Your task to perform on an android device: What's on my calendar today? Image 0: 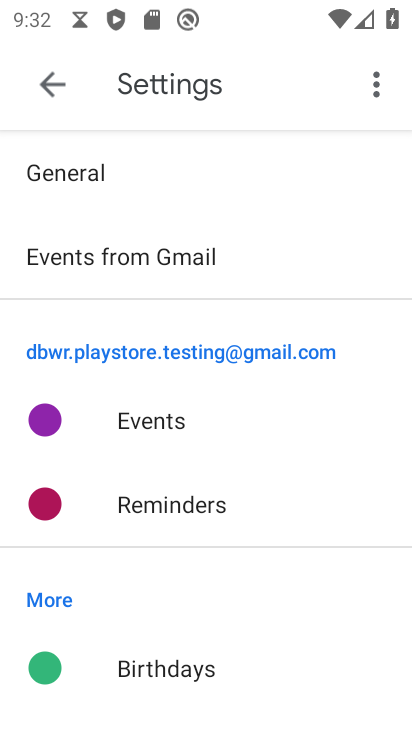
Step 0: press home button
Your task to perform on an android device: What's on my calendar today? Image 1: 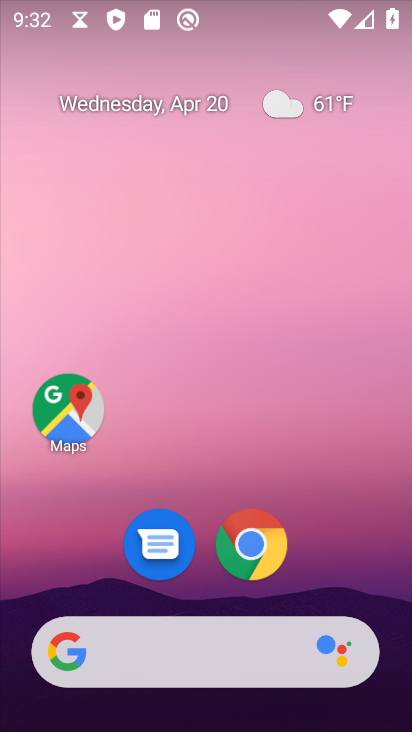
Step 1: drag from (145, 632) to (289, 50)
Your task to perform on an android device: What's on my calendar today? Image 2: 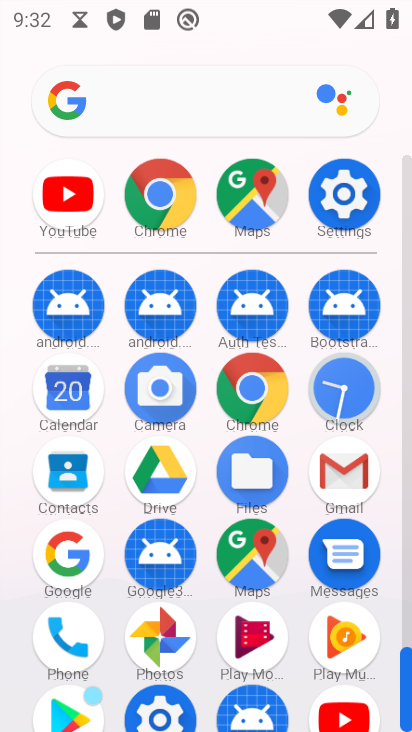
Step 2: click (79, 388)
Your task to perform on an android device: What's on my calendar today? Image 3: 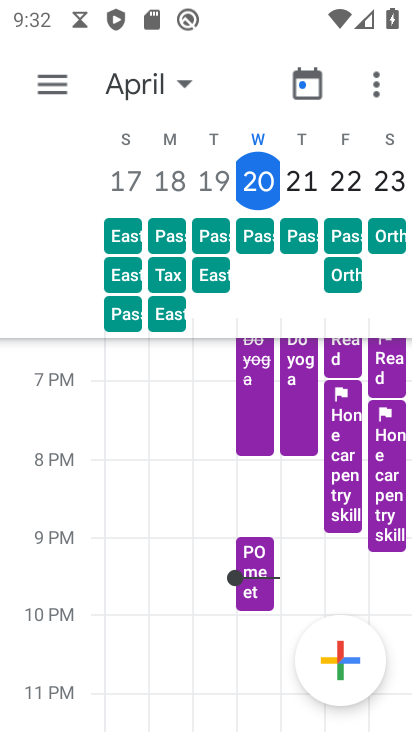
Step 3: click (125, 84)
Your task to perform on an android device: What's on my calendar today? Image 4: 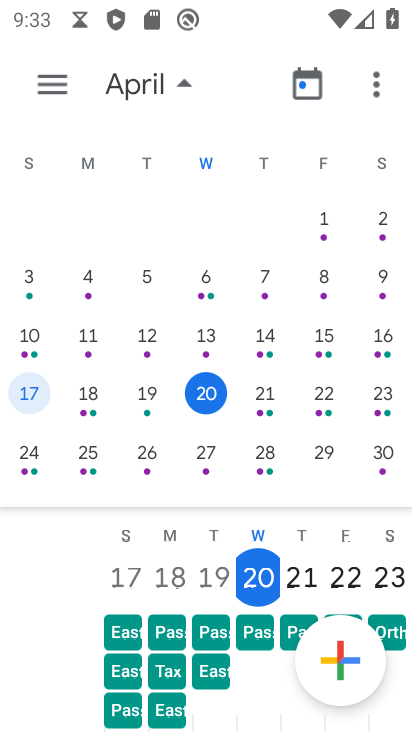
Step 4: click (54, 89)
Your task to perform on an android device: What's on my calendar today? Image 5: 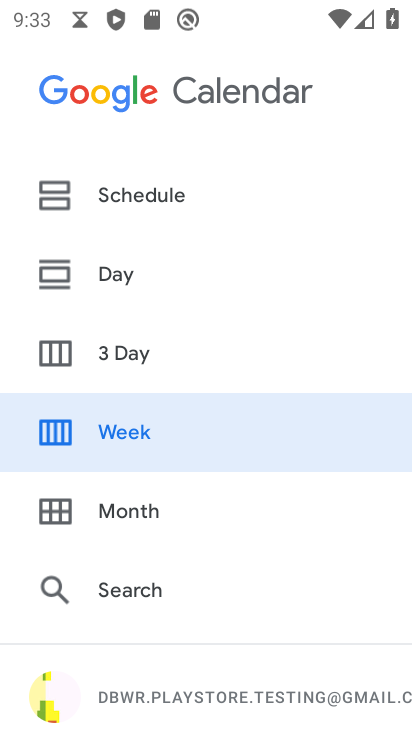
Step 5: click (138, 191)
Your task to perform on an android device: What's on my calendar today? Image 6: 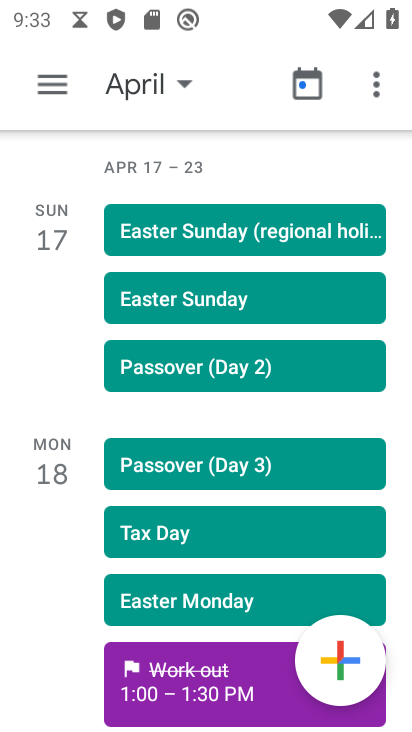
Step 6: click (138, 75)
Your task to perform on an android device: What's on my calendar today? Image 7: 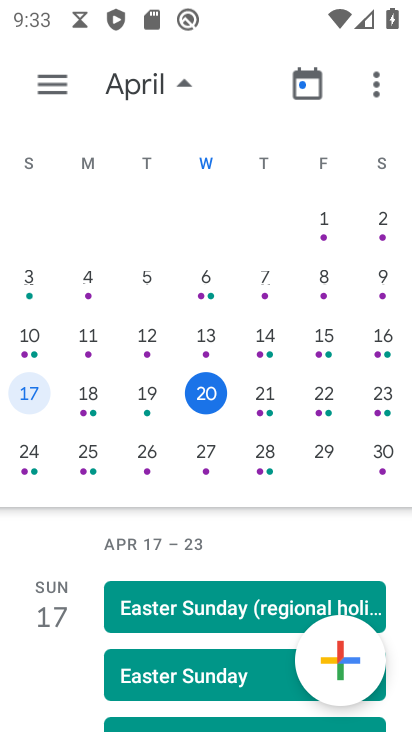
Step 7: click (205, 390)
Your task to perform on an android device: What's on my calendar today? Image 8: 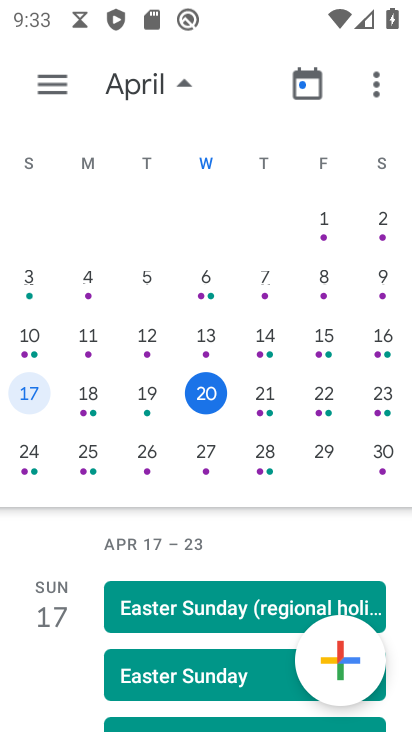
Step 8: click (48, 80)
Your task to perform on an android device: What's on my calendar today? Image 9: 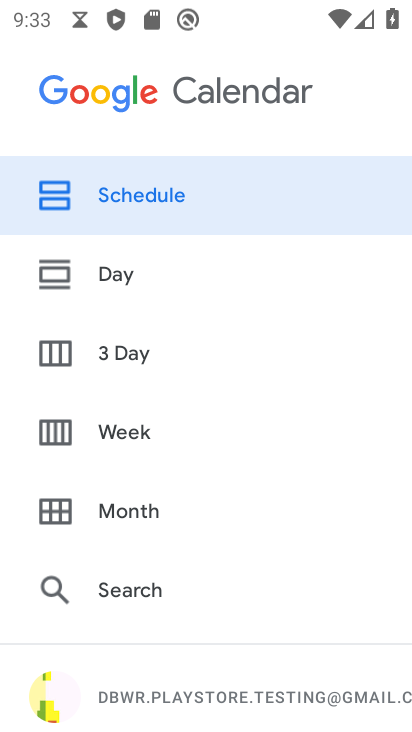
Step 9: click (112, 272)
Your task to perform on an android device: What's on my calendar today? Image 10: 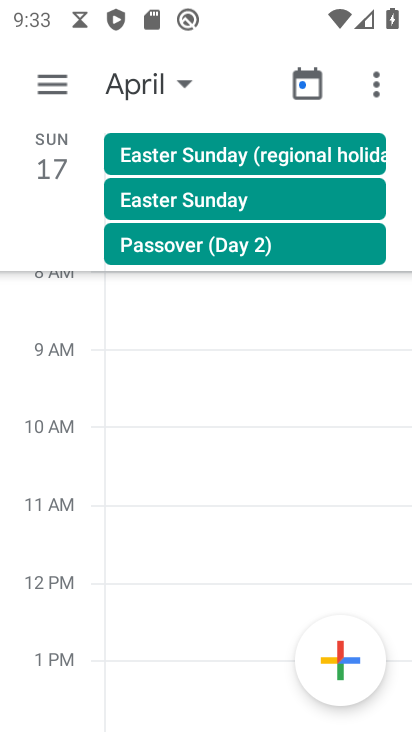
Step 10: click (119, 87)
Your task to perform on an android device: What's on my calendar today? Image 11: 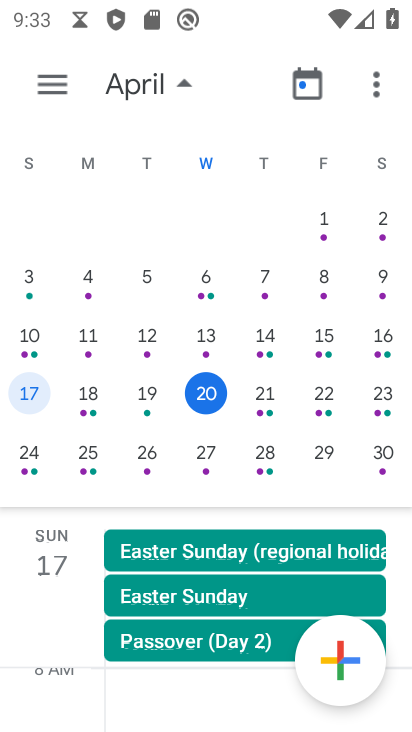
Step 11: click (222, 395)
Your task to perform on an android device: What's on my calendar today? Image 12: 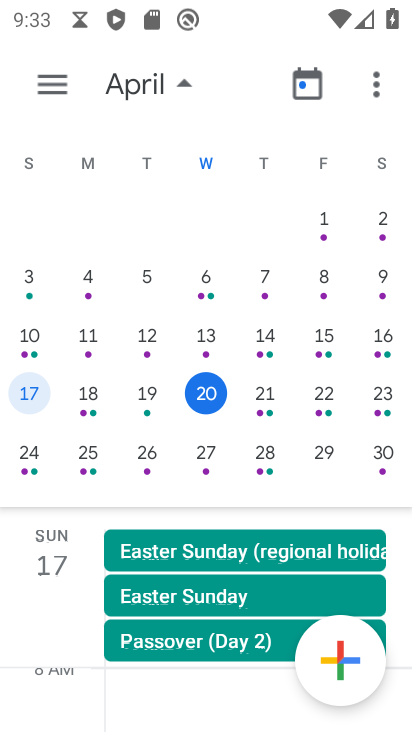
Step 12: click (209, 401)
Your task to perform on an android device: What's on my calendar today? Image 13: 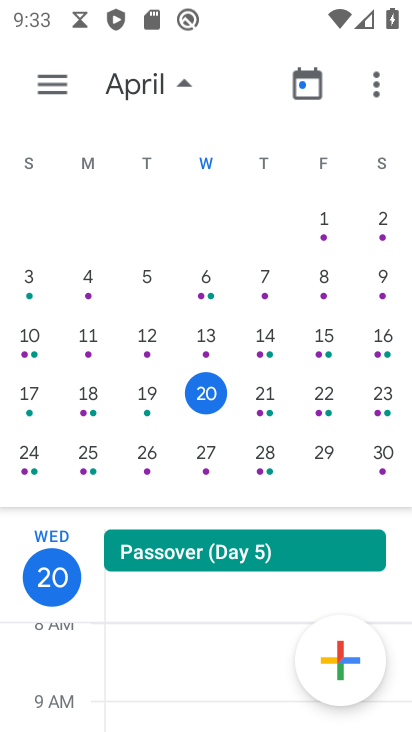
Step 13: click (262, 405)
Your task to perform on an android device: What's on my calendar today? Image 14: 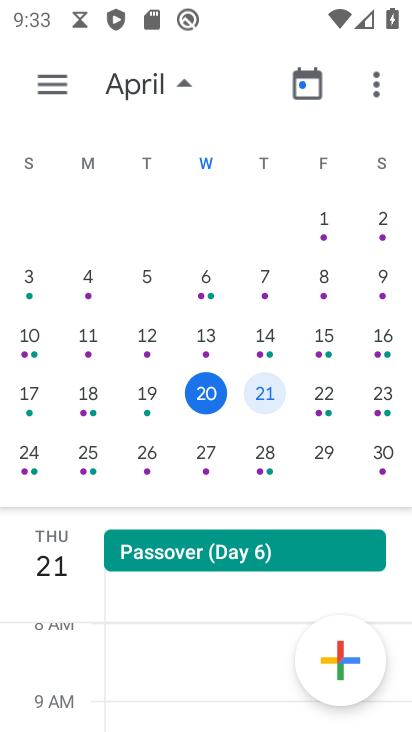
Step 14: click (194, 398)
Your task to perform on an android device: What's on my calendar today? Image 15: 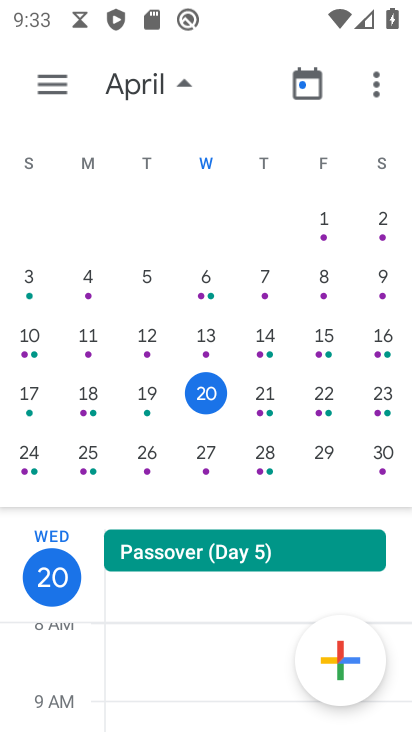
Step 15: click (52, 82)
Your task to perform on an android device: What's on my calendar today? Image 16: 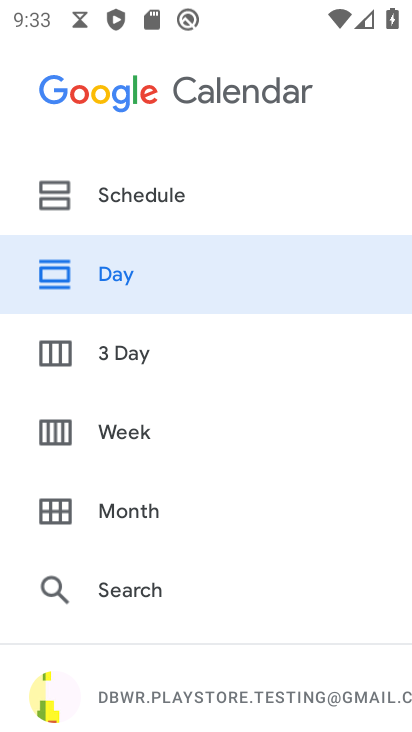
Step 16: click (137, 182)
Your task to perform on an android device: What's on my calendar today? Image 17: 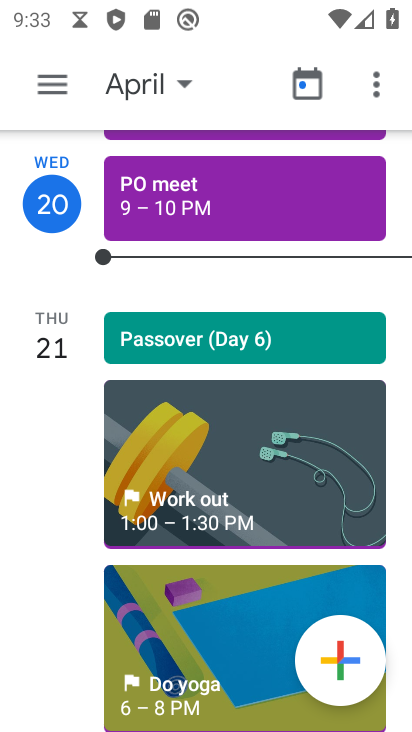
Step 17: task complete